Your task to perform on an android device: set the stopwatch Image 0: 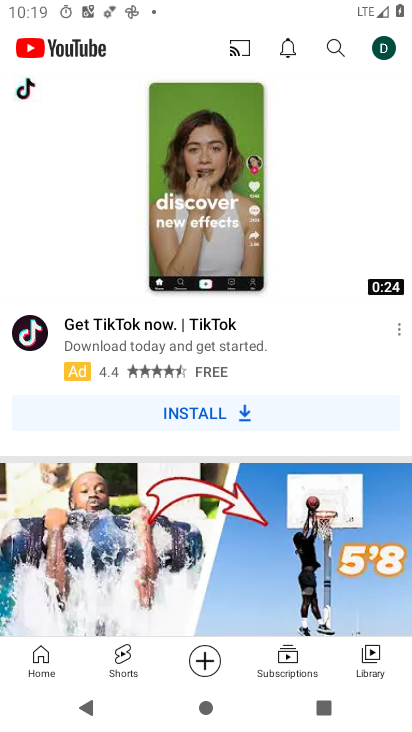
Step 0: press home button
Your task to perform on an android device: set the stopwatch Image 1: 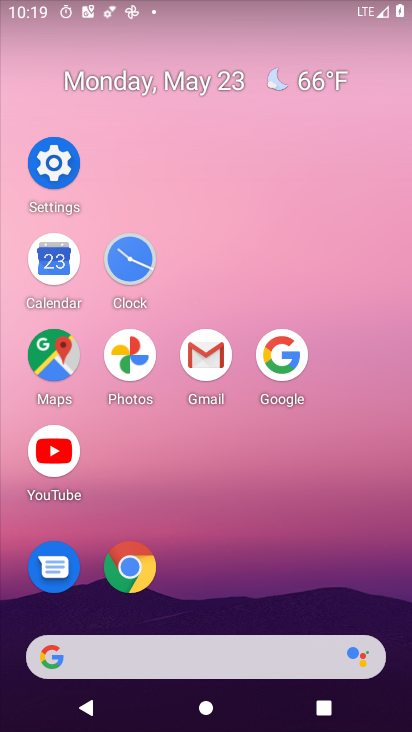
Step 1: click (133, 270)
Your task to perform on an android device: set the stopwatch Image 2: 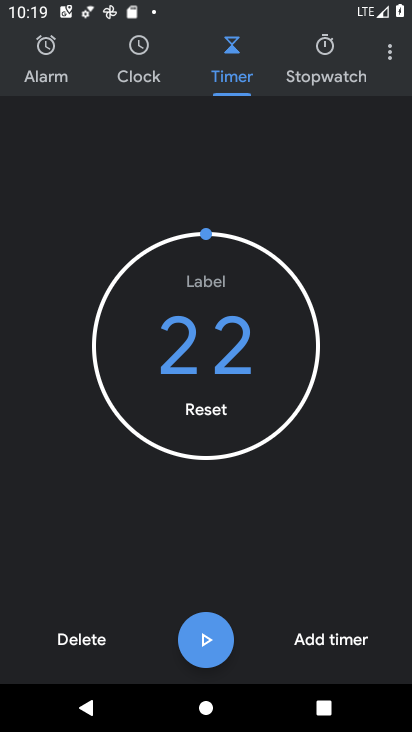
Step 2: click (328, 58)
Your task to perform on an android device: set the stopwatch Image 3: 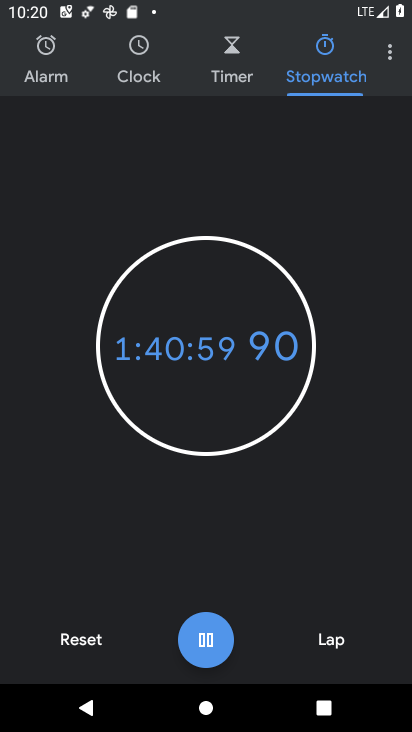
Step 3: click (77, 644)
Your task to perform on an android device: set the stopwatch Image 4: 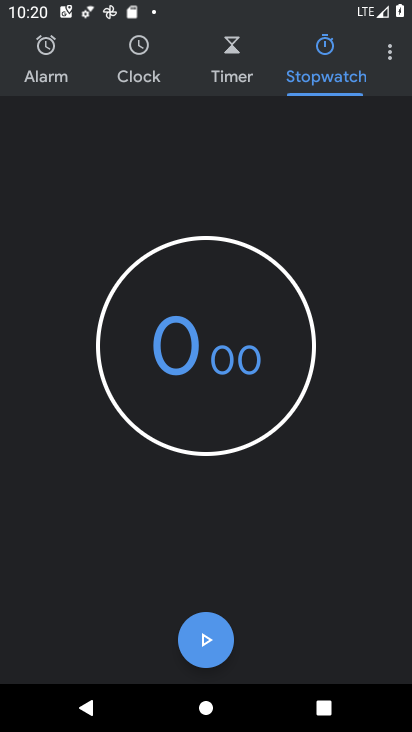
Step 4: click (190, 645)
Your task to perform on an android device: set the stopwatch Image 5: 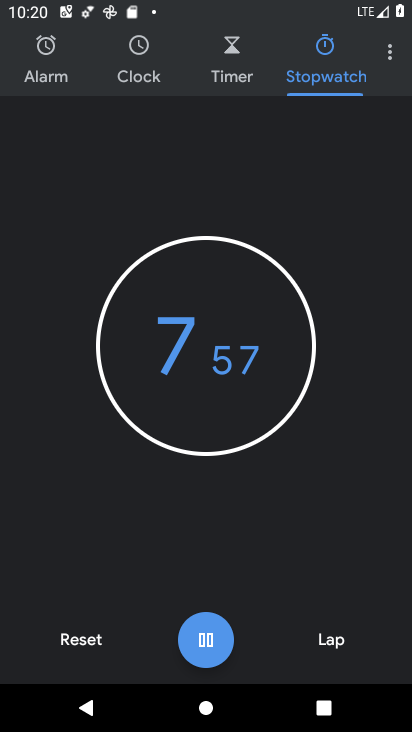
Step 5: task complete